Your task to perform on an android device: open wifi settings Image 0: 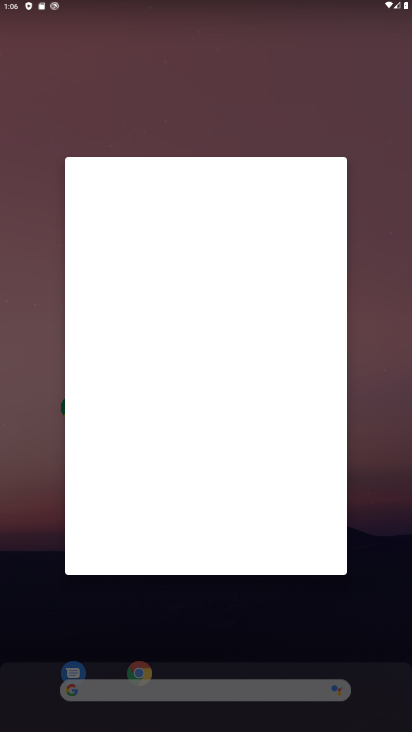
Step 0: press home button
Your task to perform on an android device: open wifi settings Image 1: 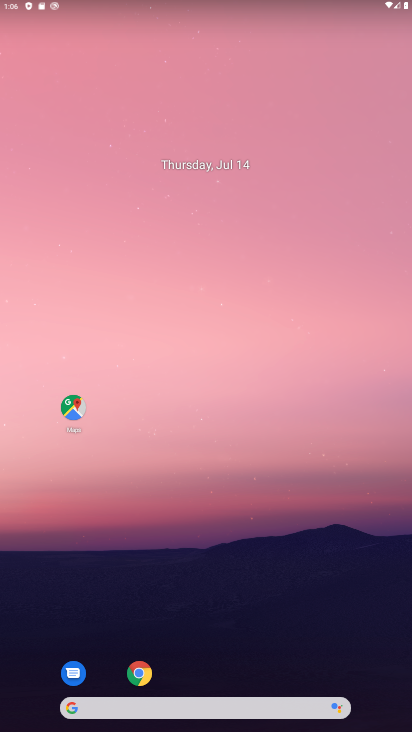
Step 1: drag from (171, 631) to (256, 242)
Your task to perform on an android device: open wifi settings Image 2: 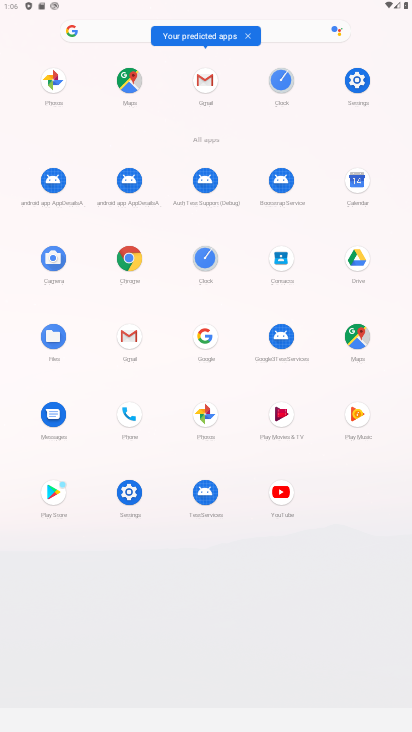
Step 2: click (137, 487)
Your task to perform on an android device: open wifi settings Image 3: 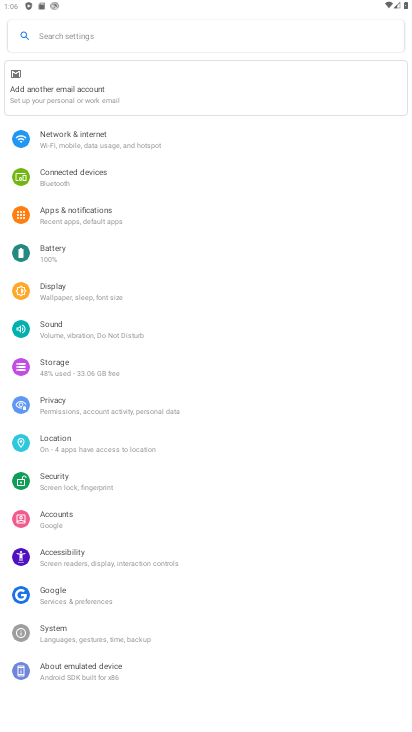
Step 3: click (129, 143)
Your task to perform on an android device: open wifi settings Image 4: 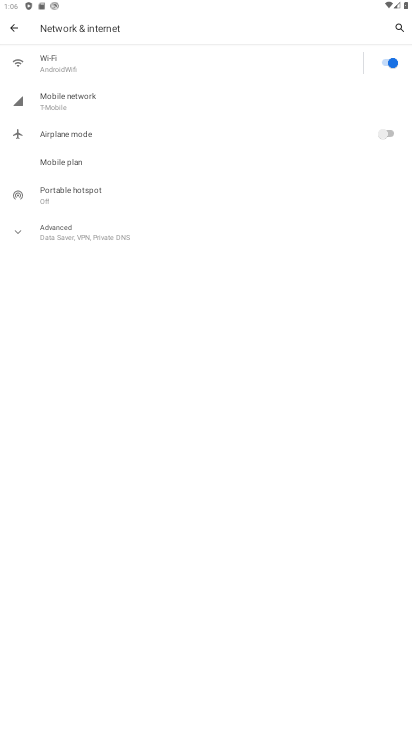
Step 4: click (107, 66)
Your task to perform on an android device: open wifi settings Image 5: 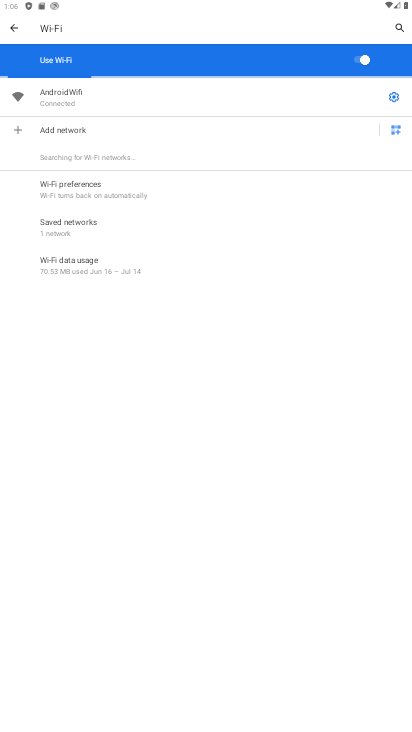
Step 5: task complete